Your task to perform on an android device: set an alarm Image 0: 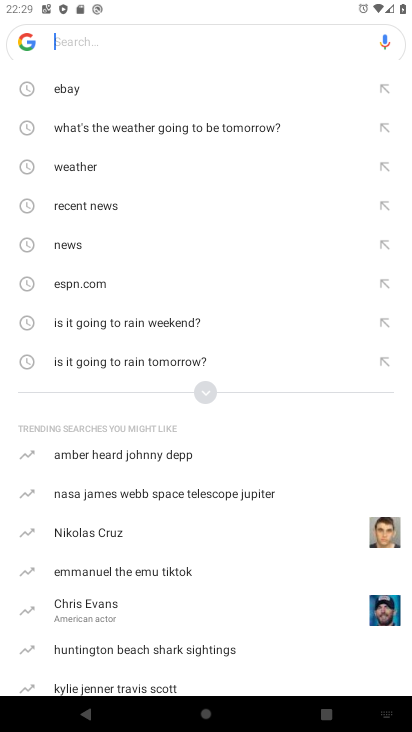
Step 0: press home button
Your task to perform on an android device: set an alarm Image 1: 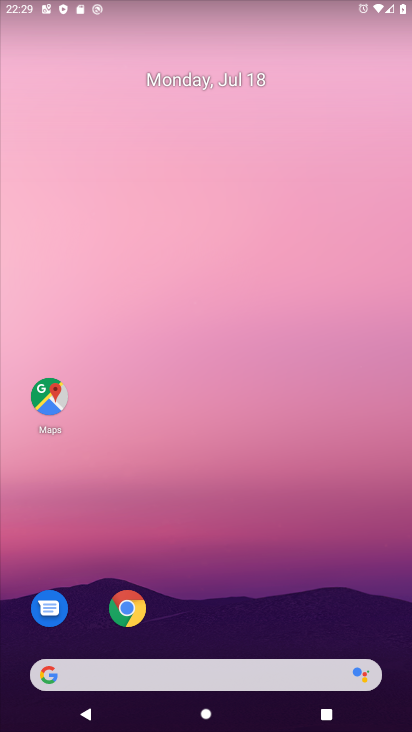
Step 1: drag from (66, 607) to (297, 11)
Your task to perform on an android device: set an alarm Image 2: 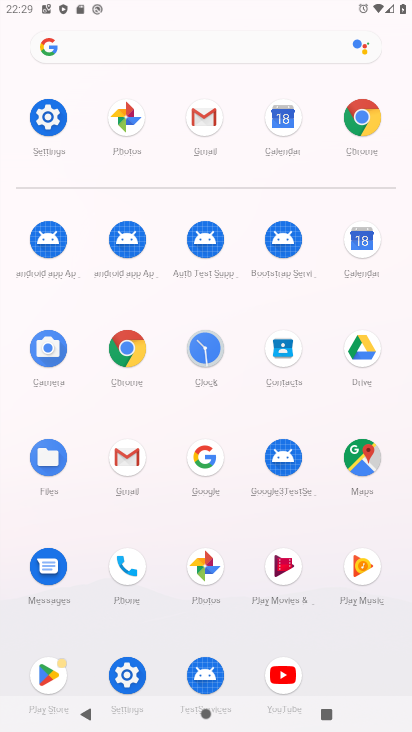
Step 2: click (192, 334)
Your task to perform on an android device: set an alarm Image 3: 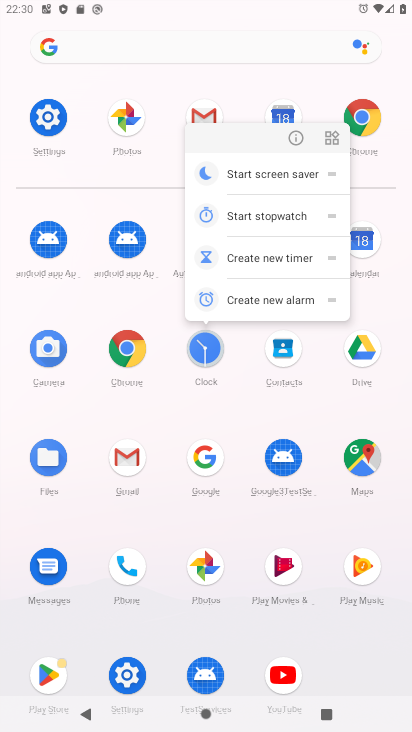
Step 3: click (203, 352)
Your task to perform on an android device: set an alarm Image 4: 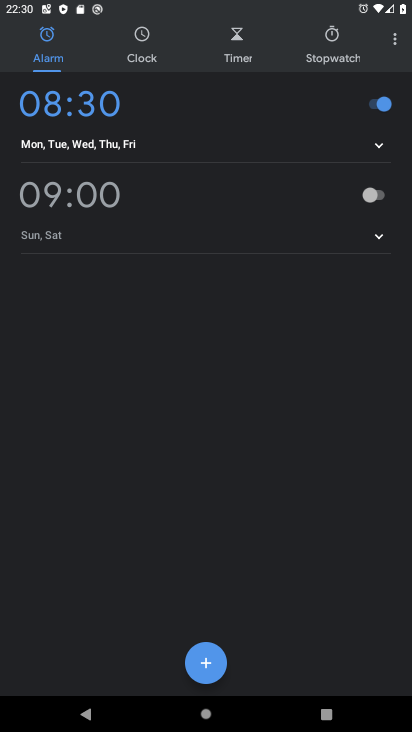
Step 4: task complete